Your task to perform on an android device: Search for Italian restaurants on Maps Image 0: 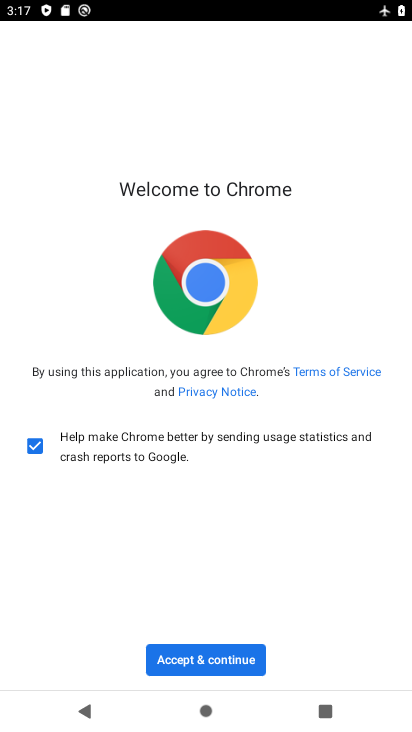
Step 0: press home button
Your task to perform on an android device: Search for Italian restaurants on Maps Image 1: 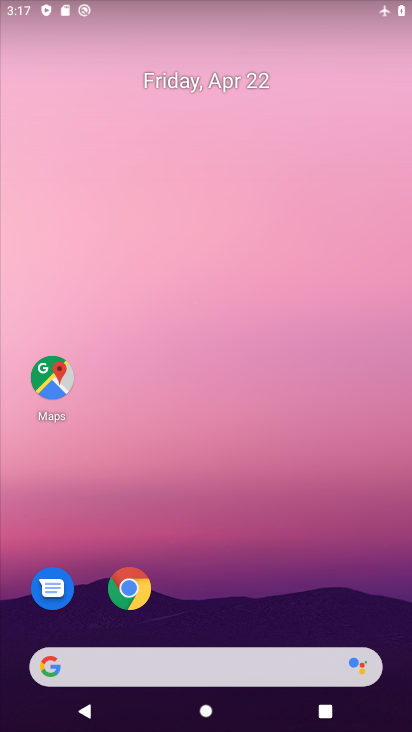
Step 1: click (61, 391)
Your task to perform on an android device: Search for Italian restaurants on Maps Image 2: 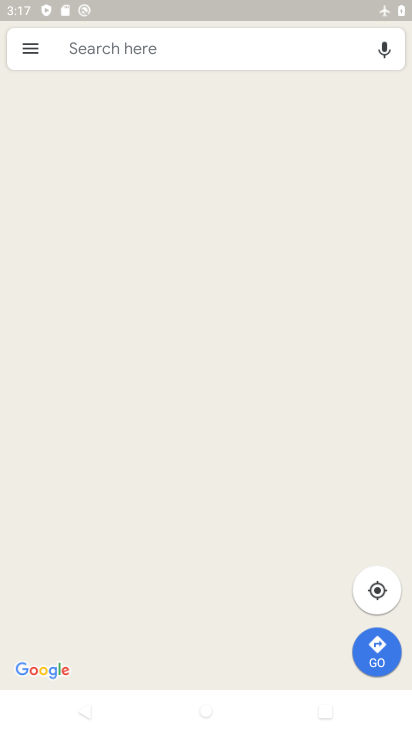
Step 2: click (147, 38)
Your task to perform on an android device: Search for Italian restaurants on Maps Image 3: 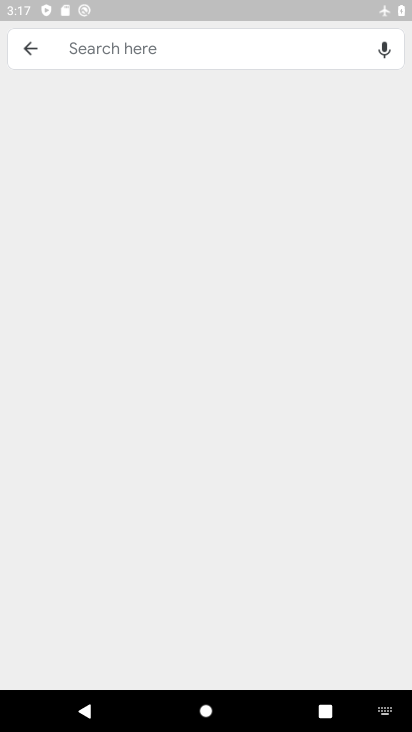
Step 3: type "Italian restaurants"
Your task to perform on an android device: Search for Italian restaurants on Maps Image 4: 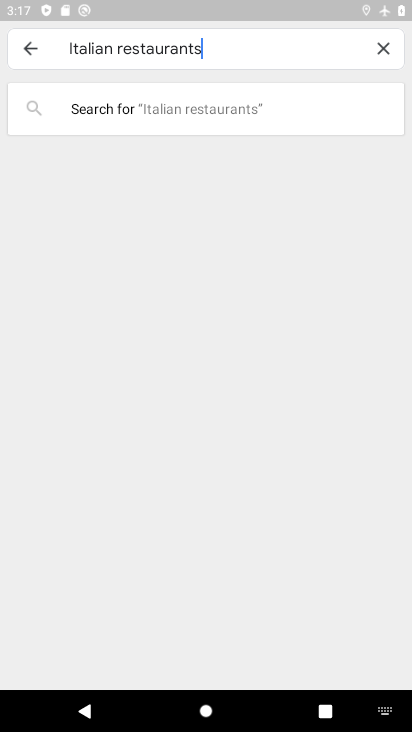
Step 4: task complete